Your task to perform on an android device: open wifi settings Image 0: 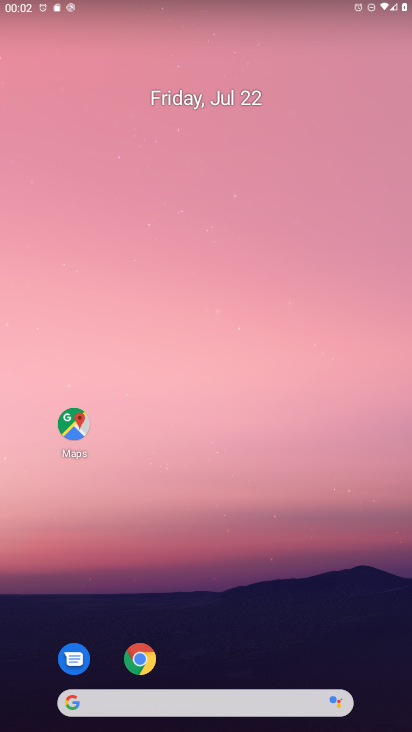
Step 0: drag from (197, 702) to (191, 67)
Your task to perform on an android device: open wifi settings Image 1: 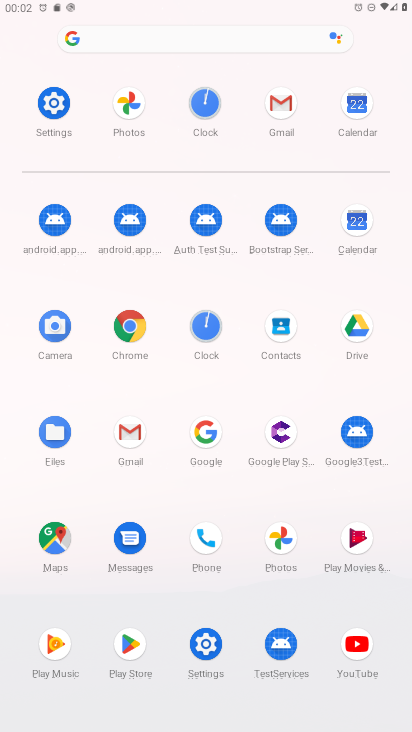
Step 1: click (51, 101)
Your task to perform on an android device: open wifi settings Image 2: 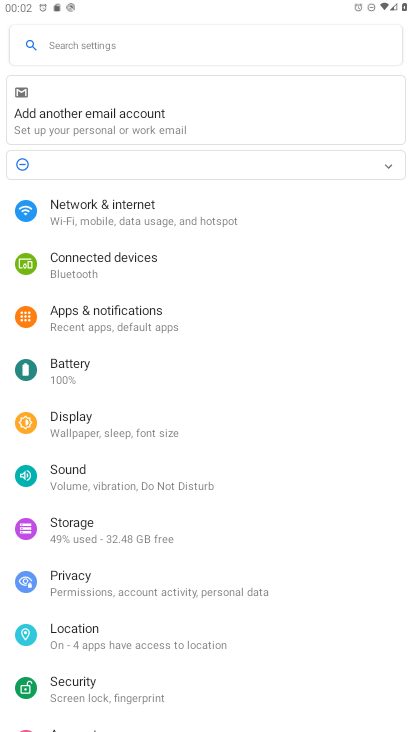
Step 2: click (88, 220)
Your task to perform on an android device: open wifi settings Image 3: 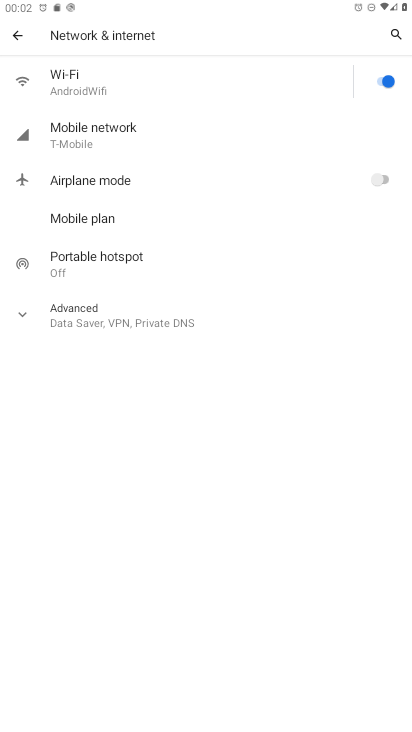
Step 3: click (84, 93)
Your task to perform on an android device: open wifi settings Image 4: 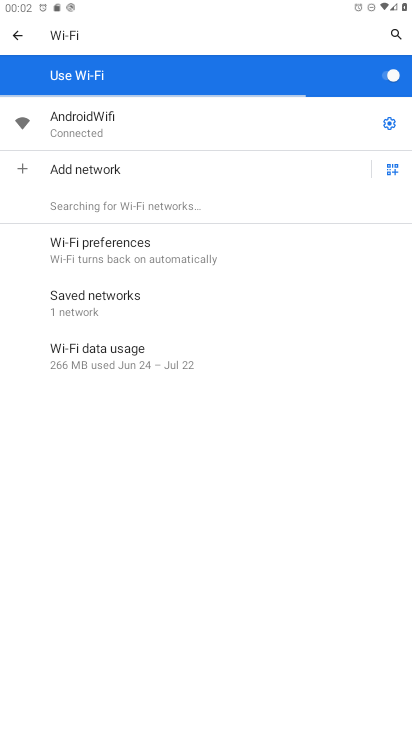
Step 4: click (387, 124)
Your task to perform on an android device: open wifi settings Image 5: 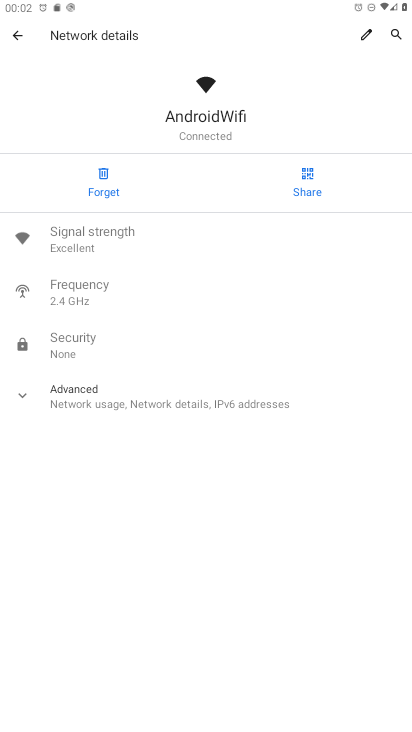
Step 5: task complete